Your task to perform on an android device: Open Youtube and go to "Your channel" Image 0: 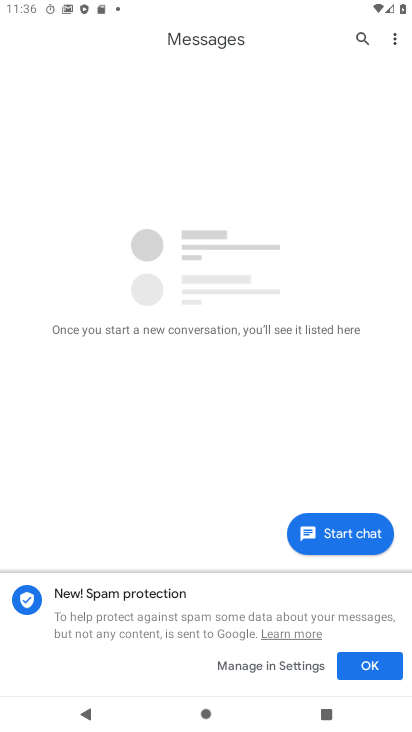
Step 0: press back button
Your task to perform on an android device: Open Youtube and go to "Your channel" Image 1: 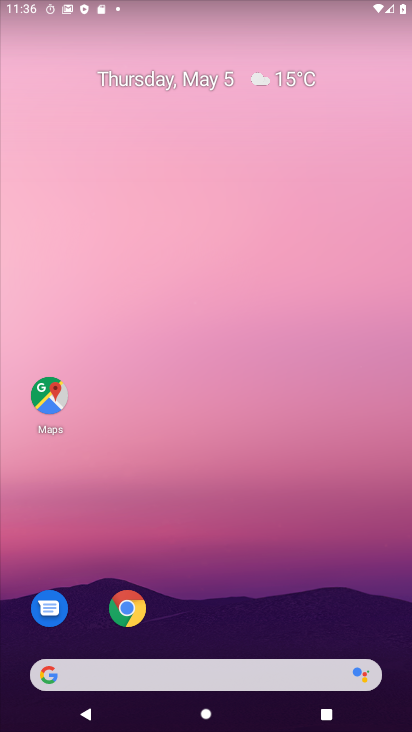
Step 1: drag from (217, 580) to (260, 67)
Your task to perform on an android device: Open Youtube and go to "Your channel" Image 2: 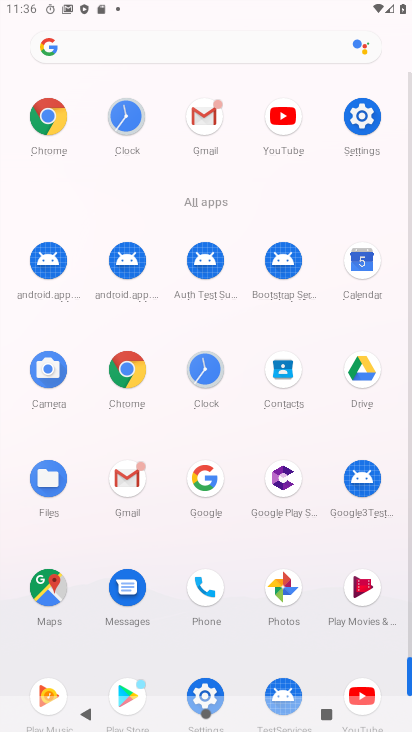
Step 2: click (281, 117)
Your task to perform on an android device: Open Youtube and go to "Your channel" Image 3: 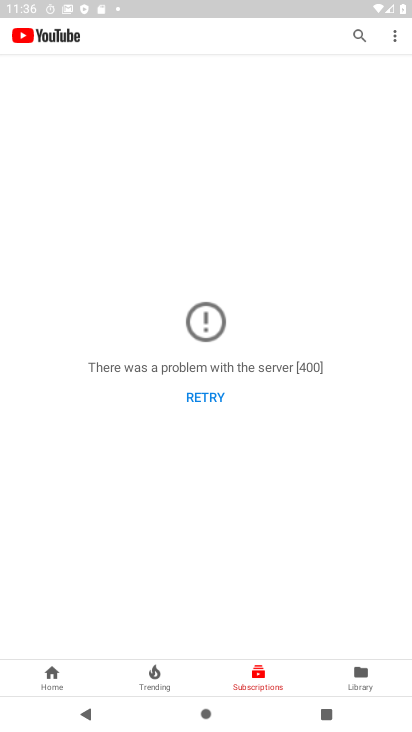
Step 3: click (397, 37)
Your task to perform on an android device: Open Youtube and go to "Your channel" Image 4: 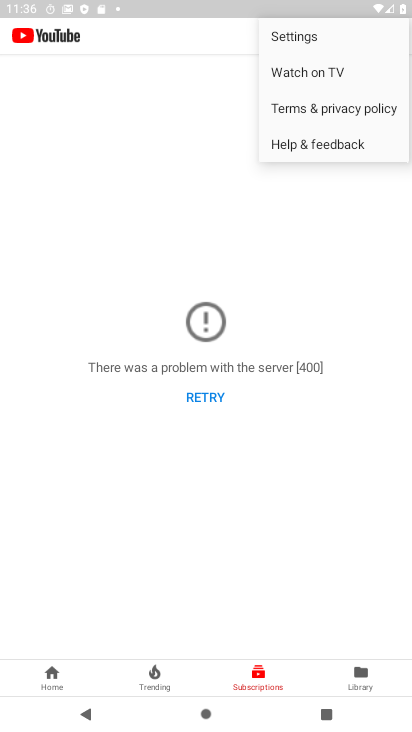
Step 4: click (320, 238)
Your task to perform on an android device: Open Youtube and go to "Your channel" Image 5: 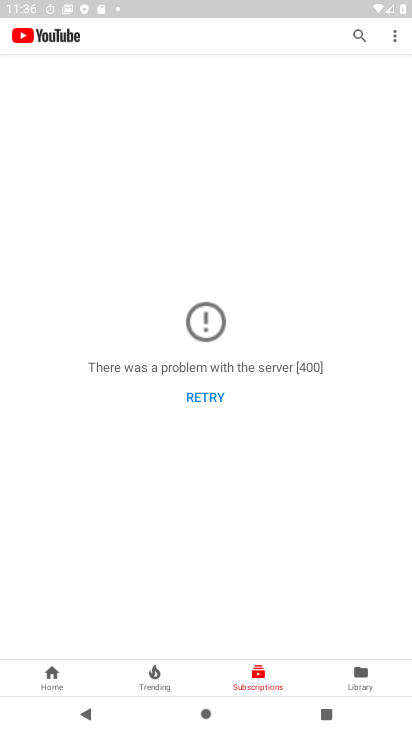
Step 5: click (32, 33)
Your task to perform on an android device: Open Youtube and go to "Your channel" Image 6: 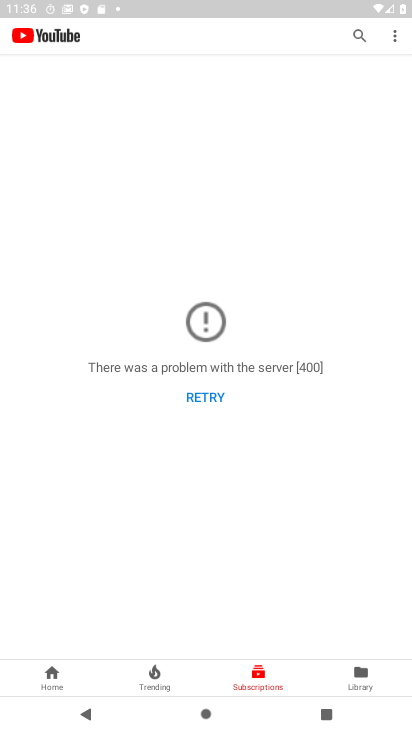
Step 6: click (40, 685)
Your task to perform on an android device: Open Youtube and go to "Your channel" Image 7: 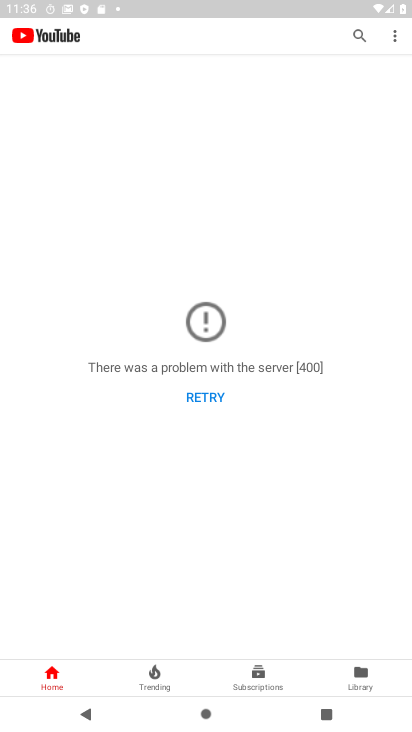
Step 7: click (359, 667)
Your task to perform on an android device: Open Youtube and go to "Your channel" Image 8: 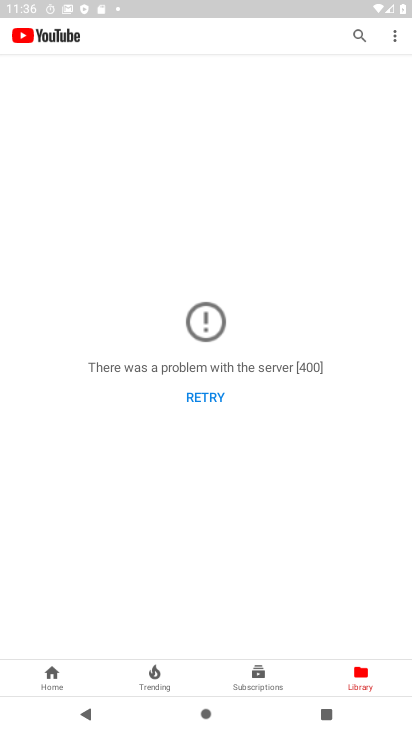
Step 8: click (146, 678)
Your task to perform on an android device: Open Youtube and go to "Your channel" Image 9: 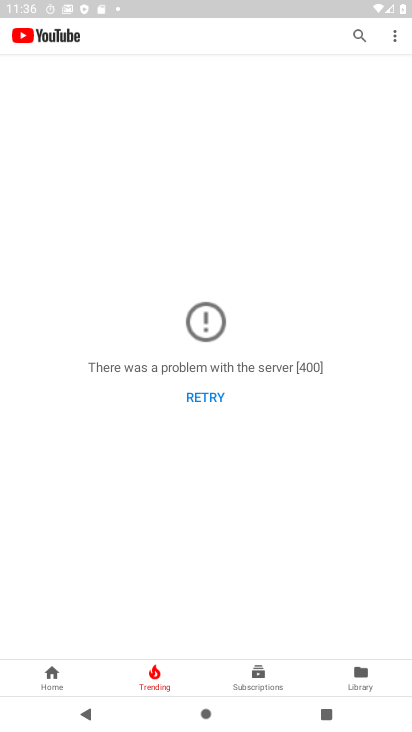
Step 9: click (196, 395)
Your task to perform on an android device: Open Youtube and go to "Your channel" Image 10: 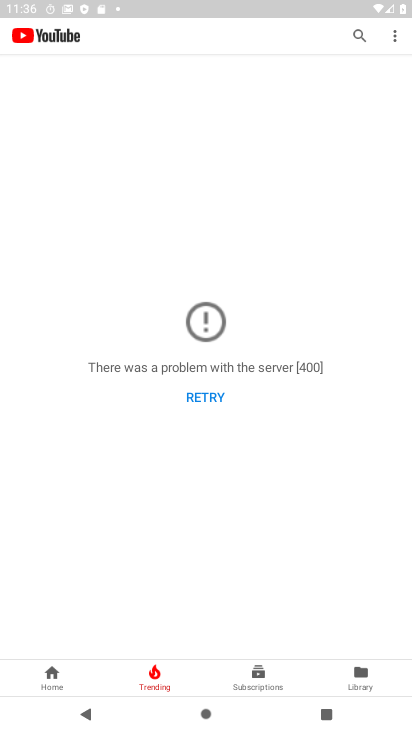
Step 10: task complete